Your task to perform on an android device: Go to Google Image 0: 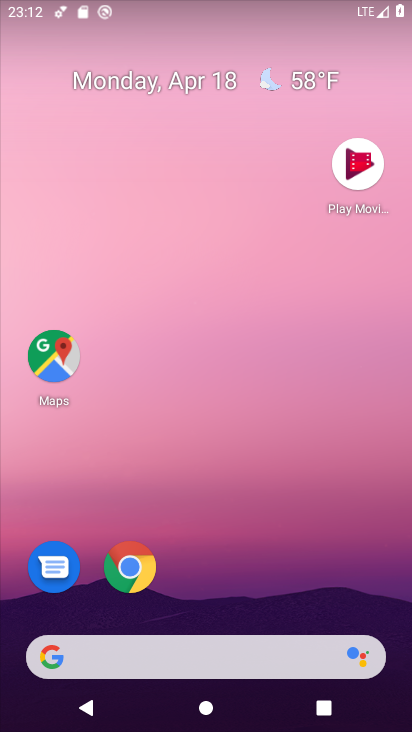
Step 0: drag from (198, 557) to (248, 24)
Your task to perform on an android device: Go to Google Image 1: 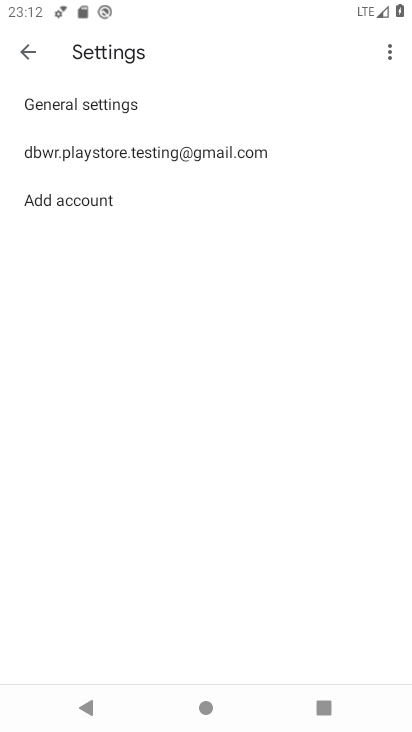
Step 1: press home button
Your task to perform on an android device: Go to Google Image 2: 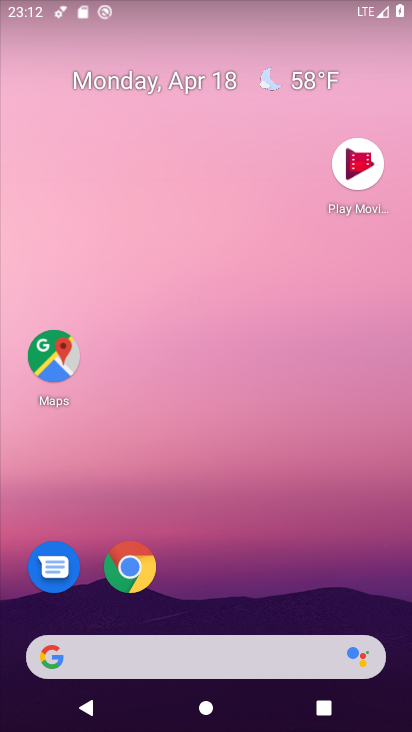
Step 2: drag from (199, 478) to (272, 1)
Your task to perform on an android device: Go to Google Image 3: 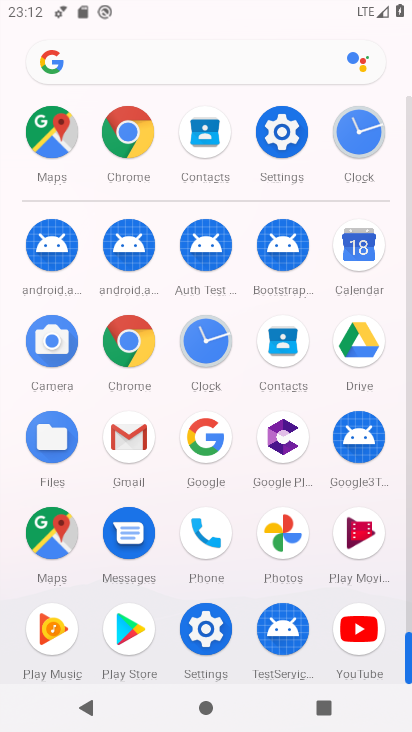
Step 3: click (216, 423)
Your task to perform on an android device: Go to Google Image 4: 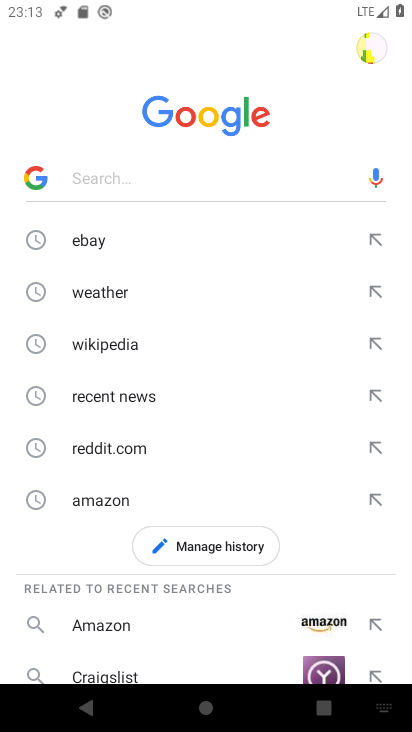
Step 4: task complete